Your task to perform on an android device: Open Google Image 0: 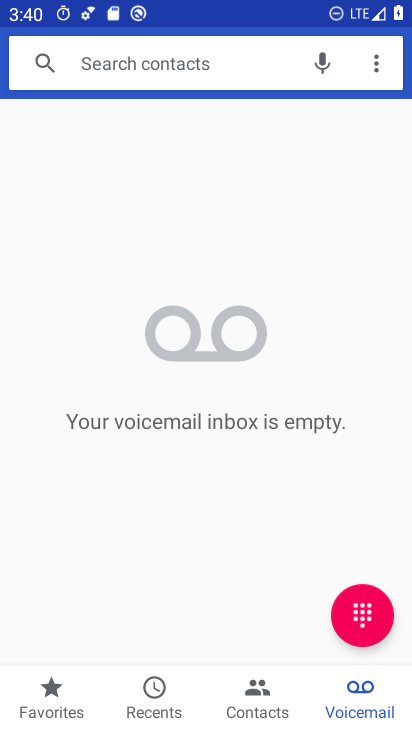
Step 0: press home button
Your task to perform on an android device: Open Google Image 1: 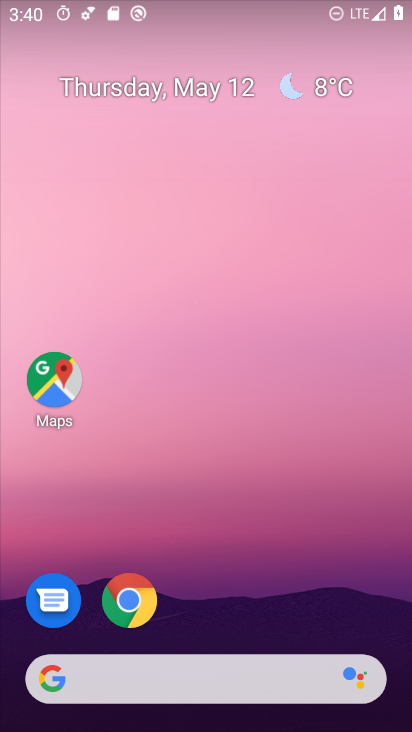
Step 1: drag from (179, 727) to (190, 319)
Your task to perform on an android device: Open Google Image 2: 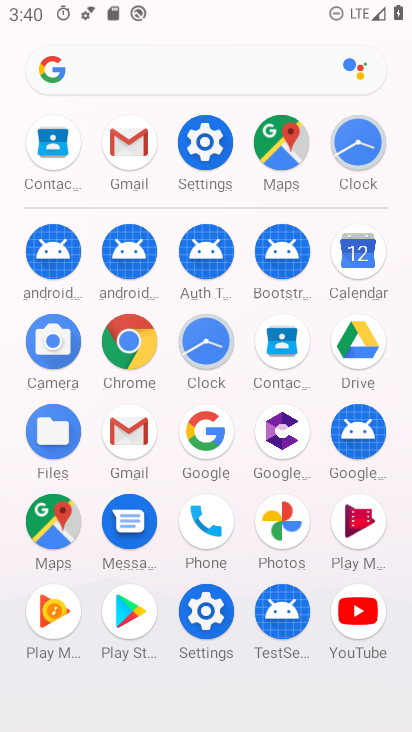
Step 2: click (201, 430)
Your task to perform on an android device: Open Google Image 3: 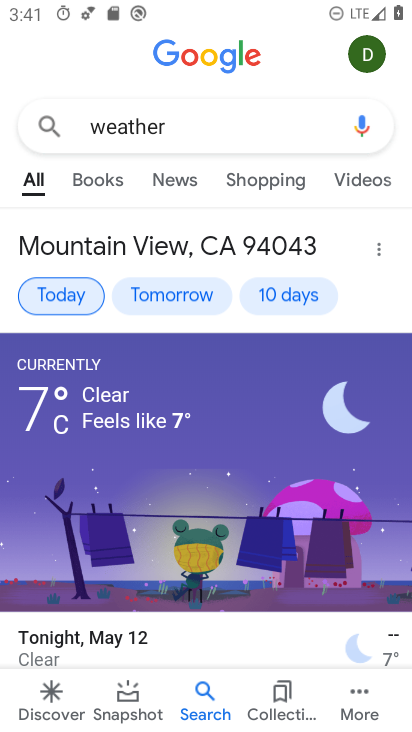
Step 3: task complete